Your task to perform on an android device: Search for seafood restaurants on Google Maps Image 0: 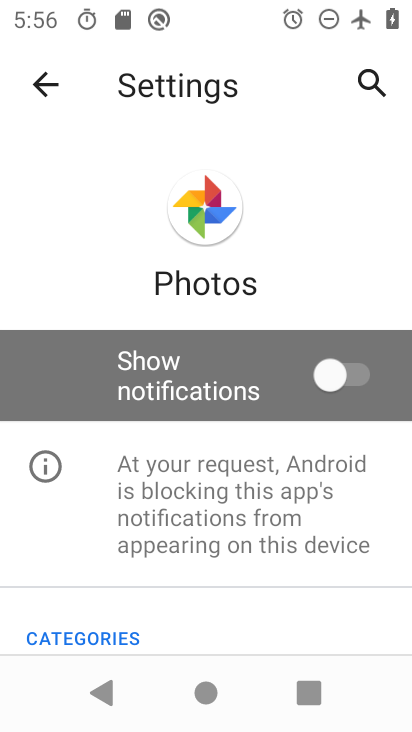
Step 0: press home button
Your task to perform on an android device: Search for seafood restaurants on Google Maps Image 1: 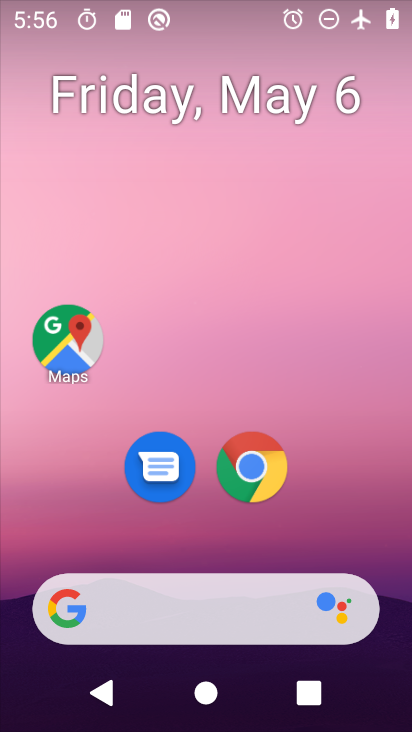
Step 1: drag from (303, 553) to (294, 235)
Your task to perform on an android device: Search for seafood restaurants on Google Maps Image 2: 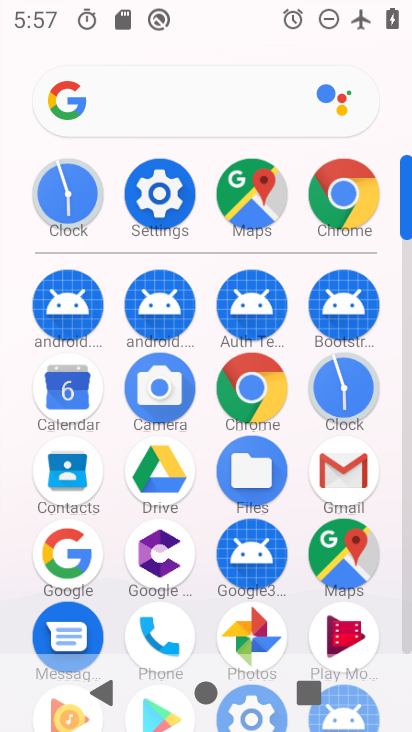
Step 2: click (248, 197)
Your task to perform on an android device: Search for seafood restaurants on Google Maps Image 3: 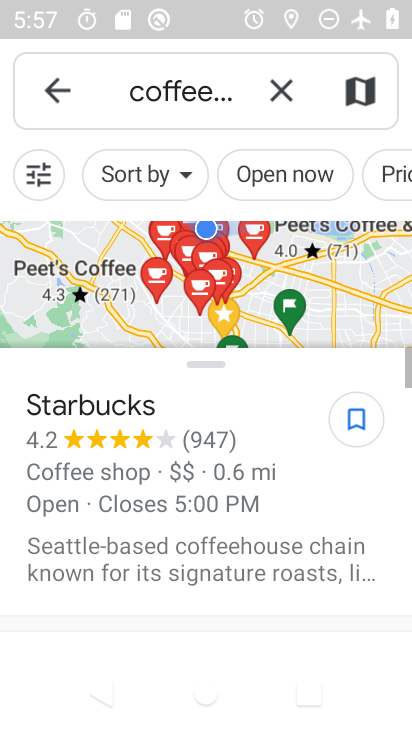
Step 3: click (273, 94)
Your task to perform on an android device: Search for seafood restaurants on Google Maps Image 4: 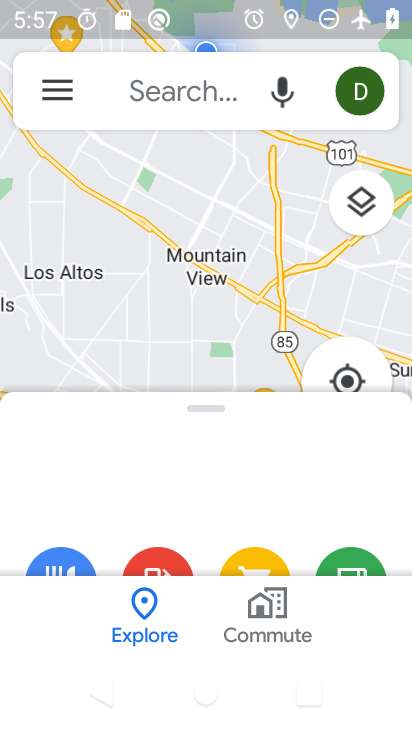
Step 4: click (200, 99)
Your task to perform on an android device: Search for seafood restaurants on Google Maps Image 5: 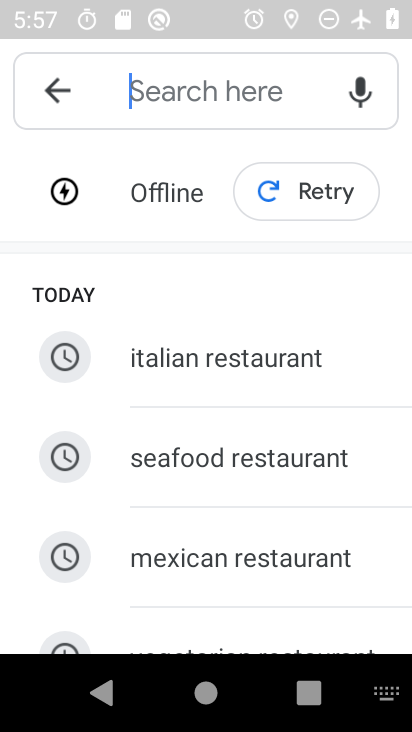
Step 5: click (330, 469)
Your task to perform on an android device: Search for seafood restaurants on Google Maps Image 6: 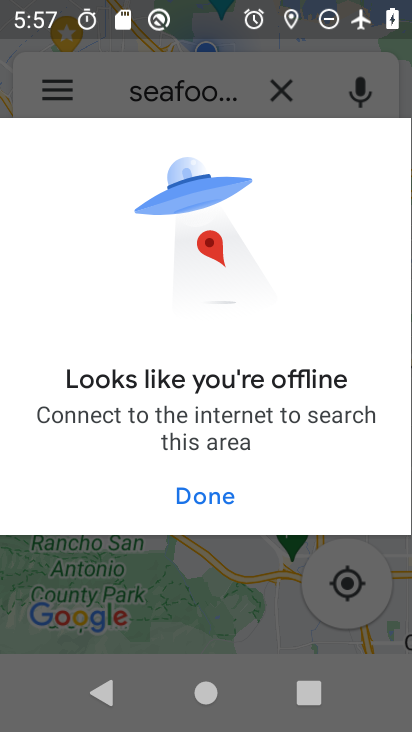
Step 6: task complete